Your task to perform on an android device: toggle show notifications on the lock screen Image 0: 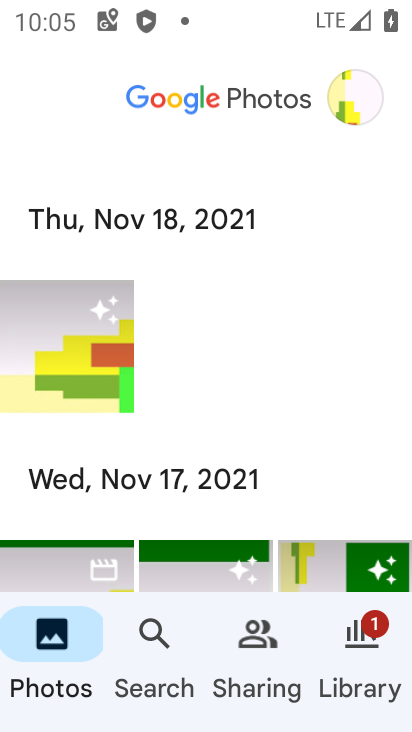
Step 0: press home button
Your task to perform on an android device: toggle show notifications on the lock screen Image 1: 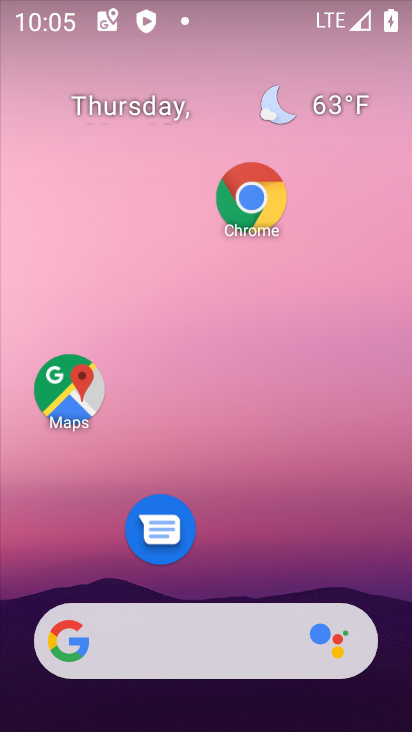
Step 1: drag from (220, 616) to (271, 273)
Your task to perform on an android device: toggle show notifications on the lock screen Image 2: 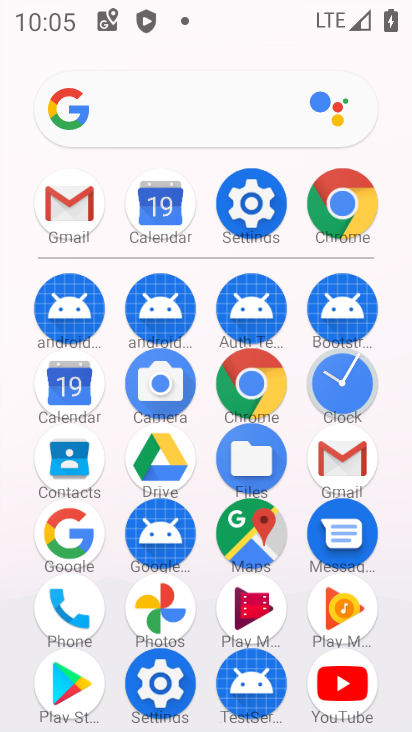
Step 2: click (267, 204)
Your task to perform on an android device: toggle show notifications on the lock screen Image 3: 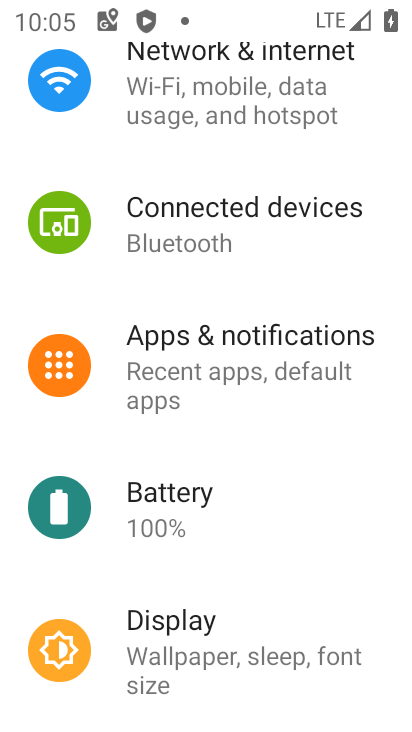
Step 3: drag from (277, 308) to (263, 622)
Your task to perform on an android device: toggle show notifications on the lock screen Image 4: 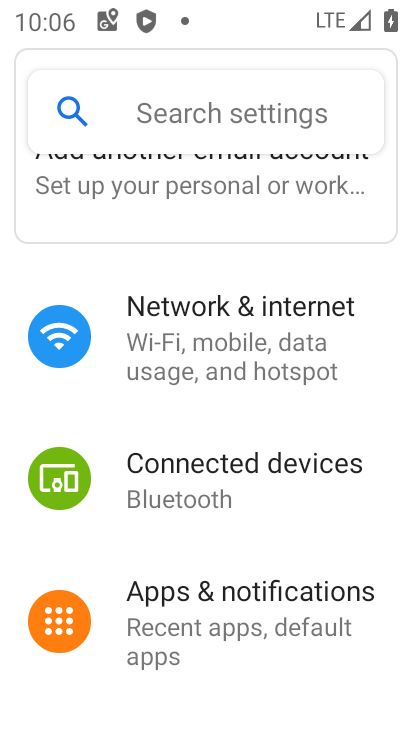
Step 4: click (267, 615)
Your task to perform on an android device: toggle show notifications on the lock screen Image 5: 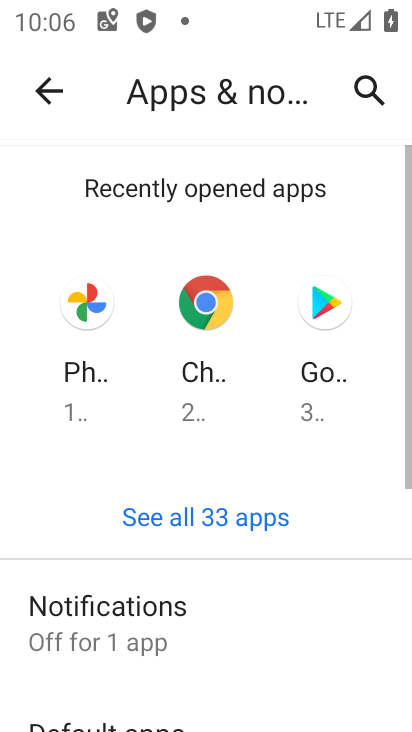
Step 5: drag from (261, 602) to (311, 215)
Your task to perform on an android device: toggle show notifications on the lock screen Image 6: 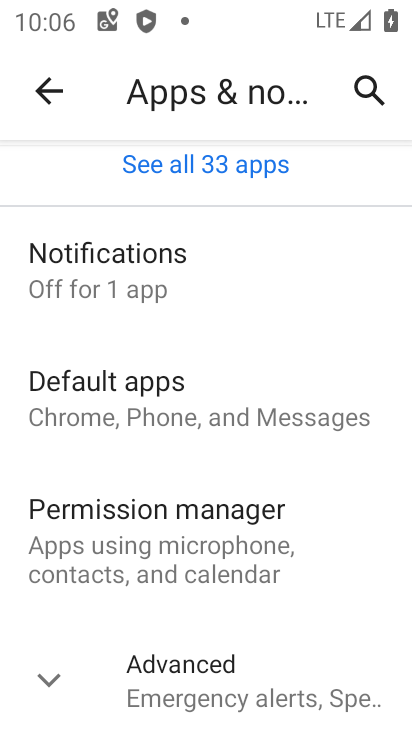
Step 6: drag from (229, 581) to (271, 247)
Your task to perform on an android device: toggle show notifications on the lock screen Image 7: 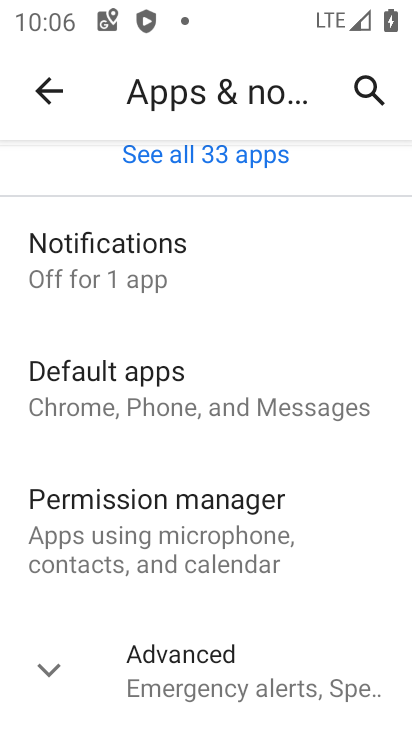
Step 7: click (228, 266)
Your task to perform on an android device: toggle show notifications on the lock screen Image 8: 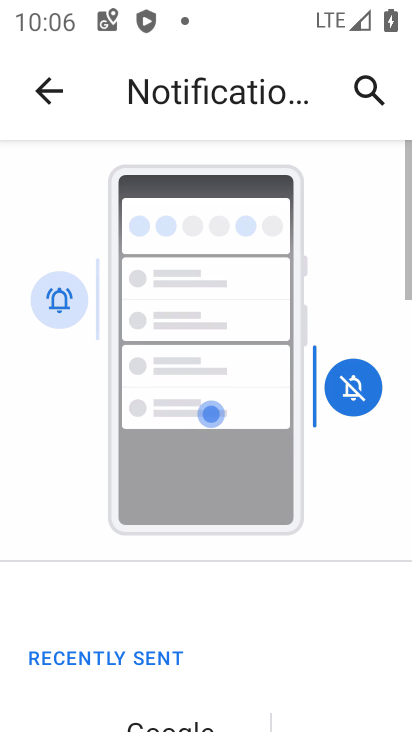
Step 8: drag from (206, 612) to (328, 51)
Your task to perform on an android device: toggle show notifications on the lock screen Image 9: 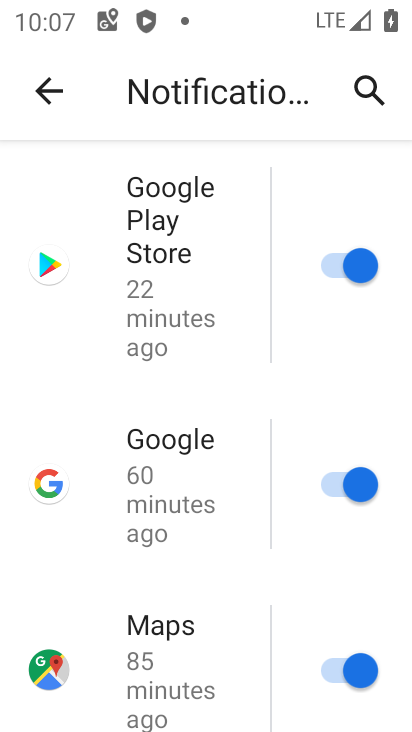
Step 9: drag from (231, 566) to (329, 105)
Your task to perform on an android device: toggle show notifications on the lock screen Image 10: 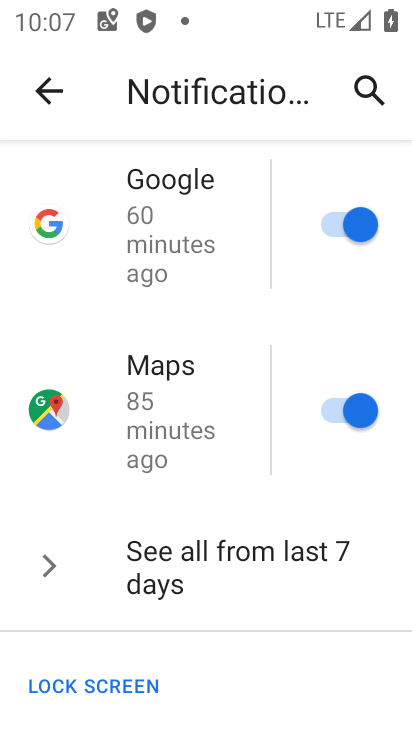
Step 10: drag from (232, 604) to (294, 189)
Your task to perform on an android device: toggle show notifications on the lock screen Image 11: 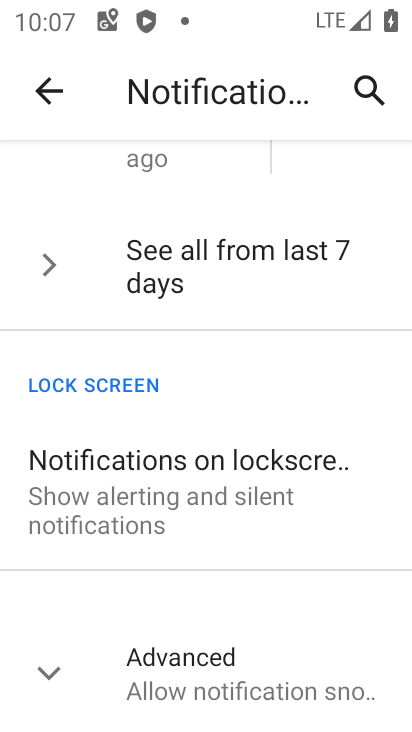
Step 11: click (223, 475)
Your task to perform on an android device: toggle show notifications on the lock screen Image 12: 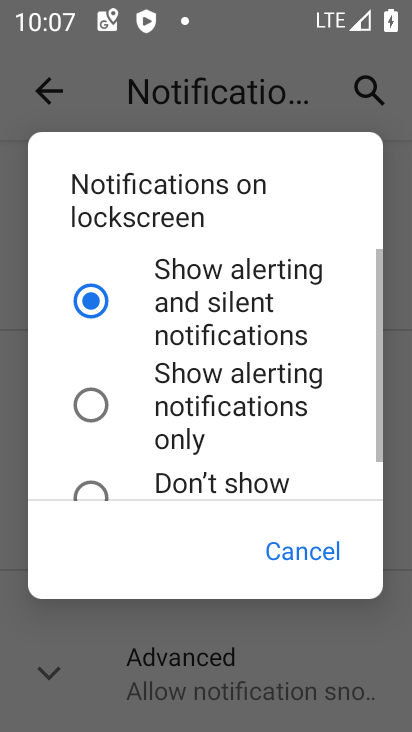
Step 12: drag from (204, 415) to (281, 159)
Your task to perform on an android device: toggle show notifications on the lock screen Image 13: 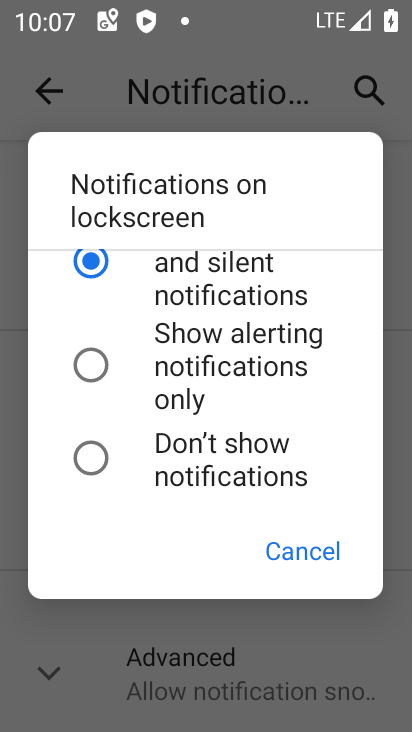
Step 13: click (108, 456)
Your task to perform on an android device: toggle show notifications on the lock screen Image 14: 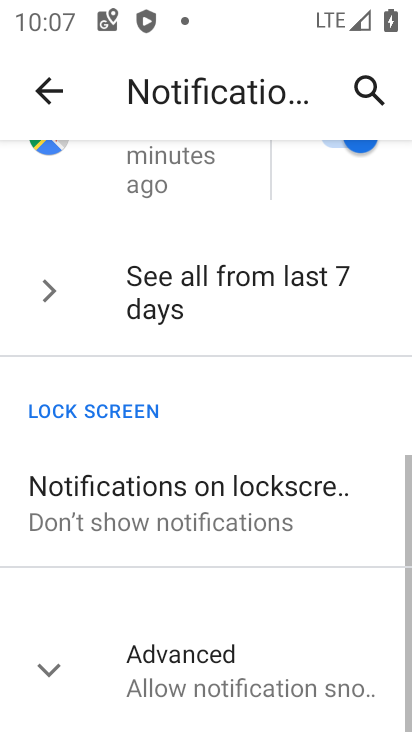
Step 14: task complete